Your task to perform on an android device: Go to settings Image 0: 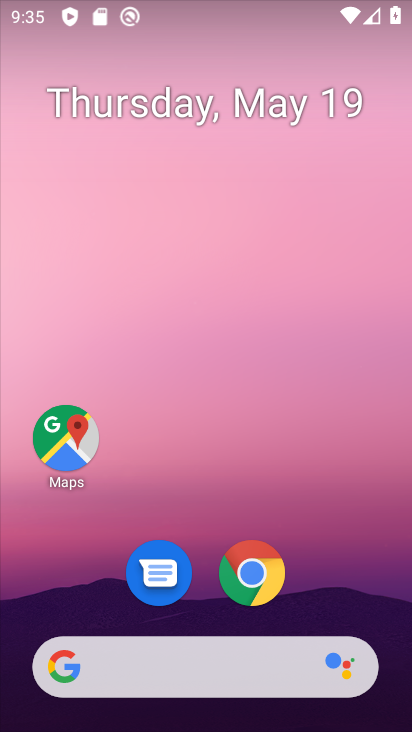
Step 0: drag from (210, 614) to (153, 143)
Your task to perform on an android device: Go to settings Image 1: 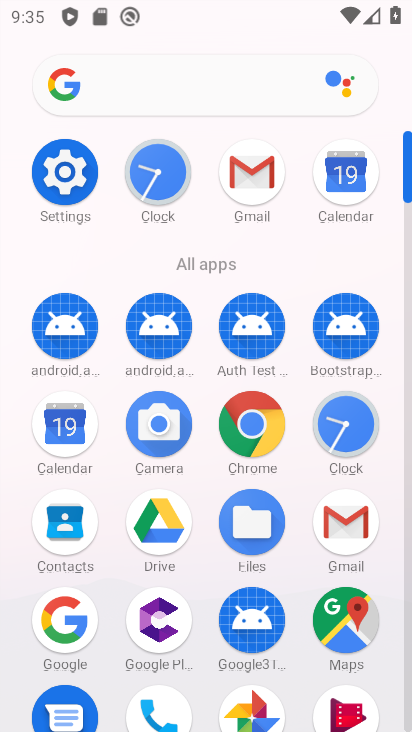
Step 1: click (89, 159)
Your task to perform on an android device: Go to settings Image 2: 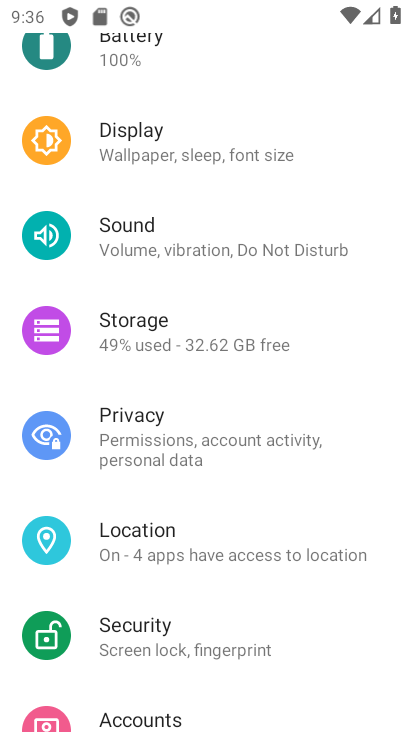
Step 2: task complete